Your task to perform on an android device: What's on my calendar tomorrow? Image 0: 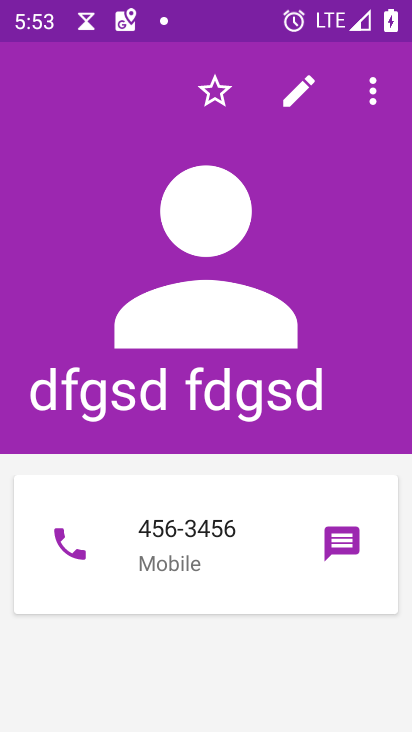
Step 0: press home button
Your task to perform on an android device: What's on my calendar tomorrow? Image 1: 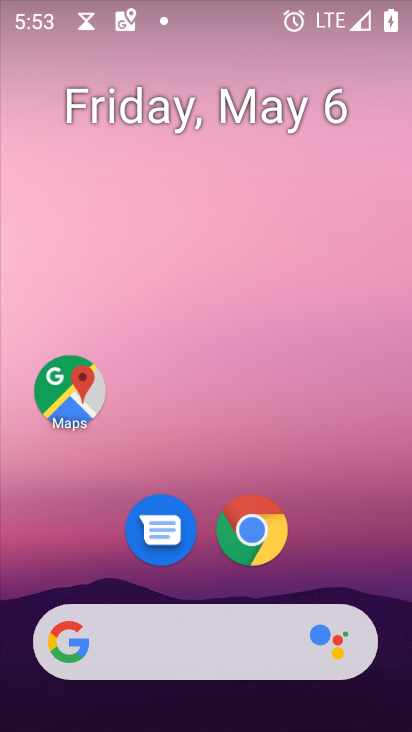
Step 1: drag from (344, 545) to (228, 75)
Your task to perform on an android device: What's on my calendar tomorrow? Image 2: 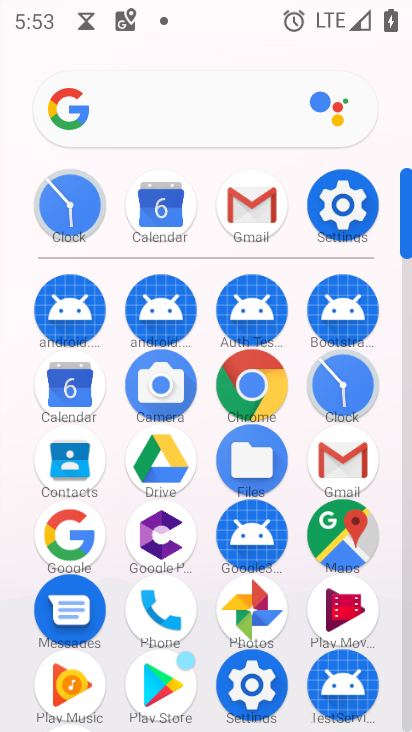
Step 2: click (78, 376)
Your task to perform on an android device: What's on my calendar tomorrow? Image 3: 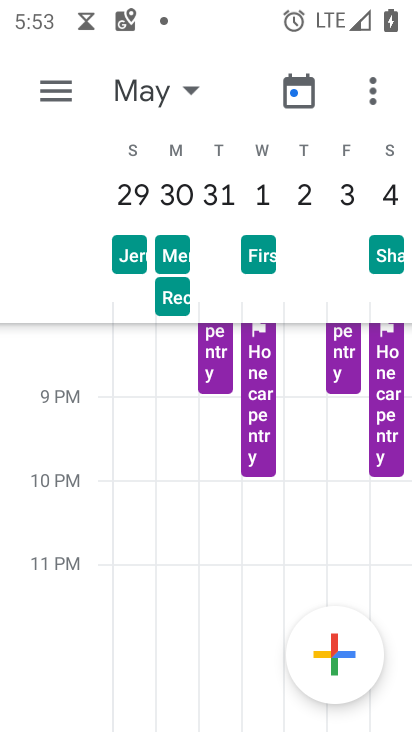
Step 3: click (183, 86)
Your task to perform on an android device: What's on my calendar tomorrow? Image 4: 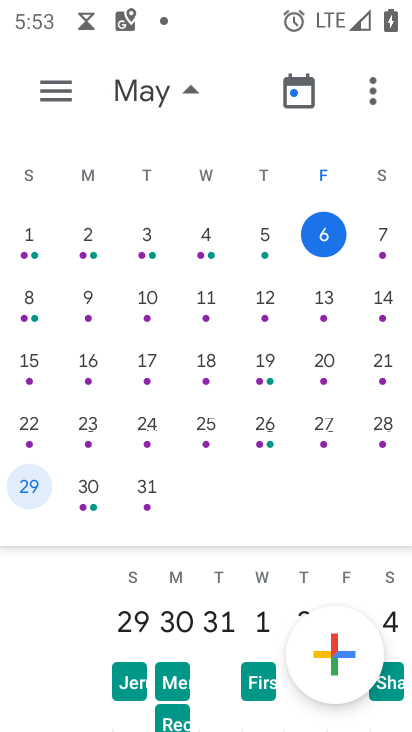
Step 4: click (44, 237)
Your task to perform on an android device: What's on my calendar tomorrow? Image 5: 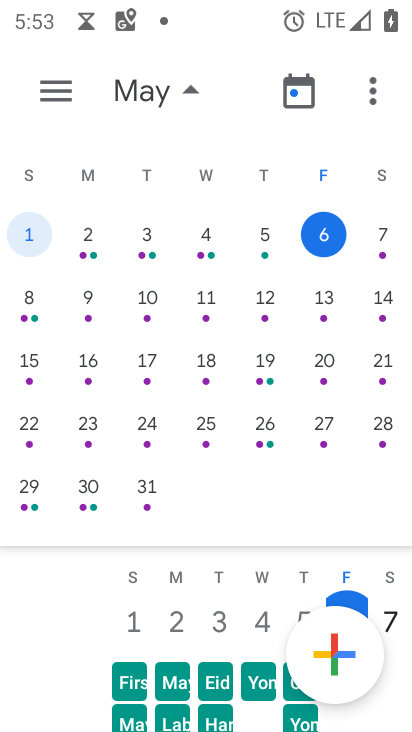
Step 5: task complete